Your task to perform on an android device: change the upload size in google photos Image 0: 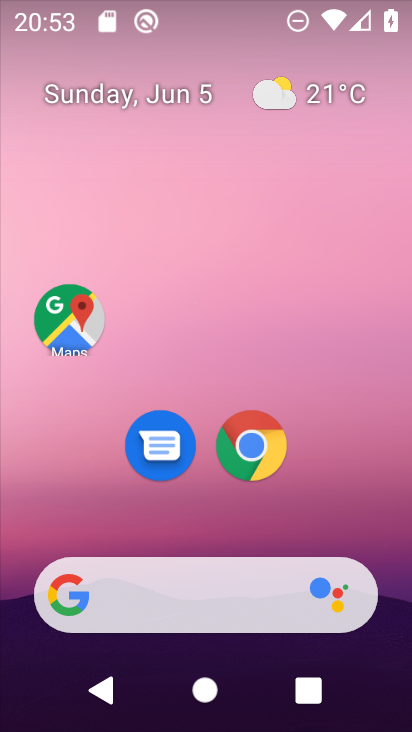
Step 0: press home button
Your task to perform on an android device: change the upload size in google photos Image 1: 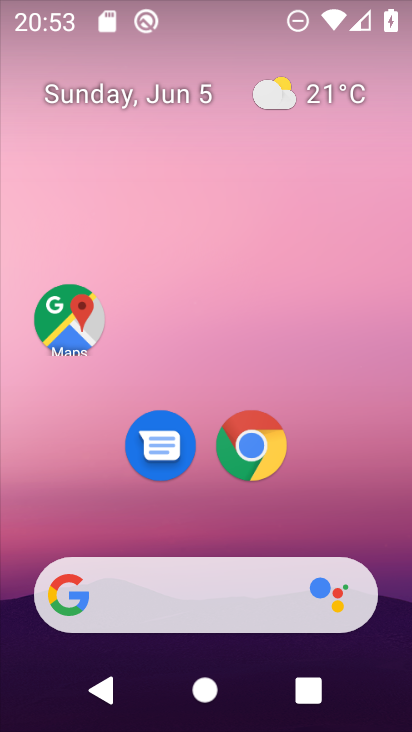
Step 1: drag from (332, 518) to (297, 99)
Your task to perform on an android device: change the upload size in google photos Image 2: 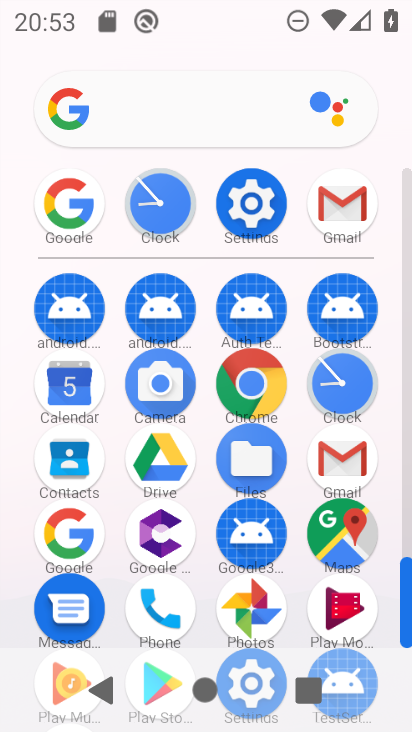
Step 2: click (245, 598)
Your task to perform on an android device: change the upload size in google photos Image 3: 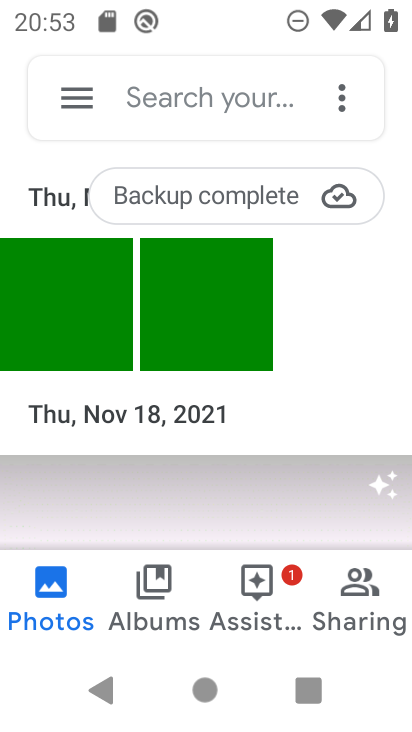
Step 3: click (82, 101)
Your task to perform on an android device: change the upload size in google photos Image 4: 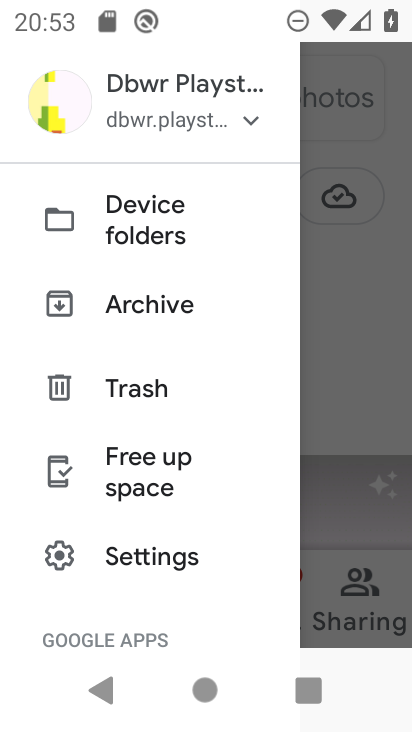
Step 4: drag from (45, 618) to (67, 217)
Your task to perform on an android device: change the upload size in google photos Image 5: 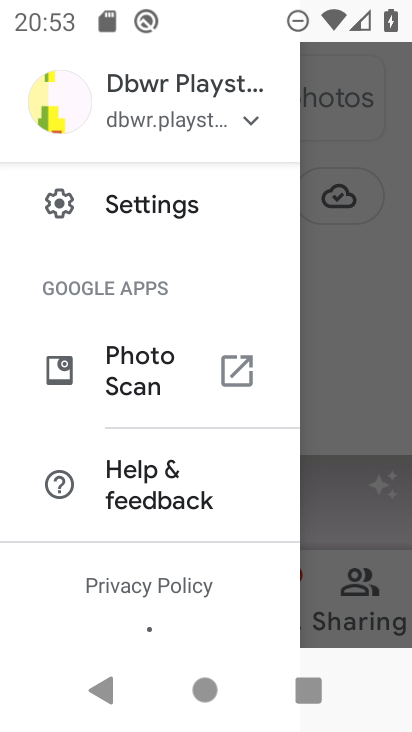
Step 5: click (133, 216)
Your task to perform on an android device: change the upload size in google photos Image 6: 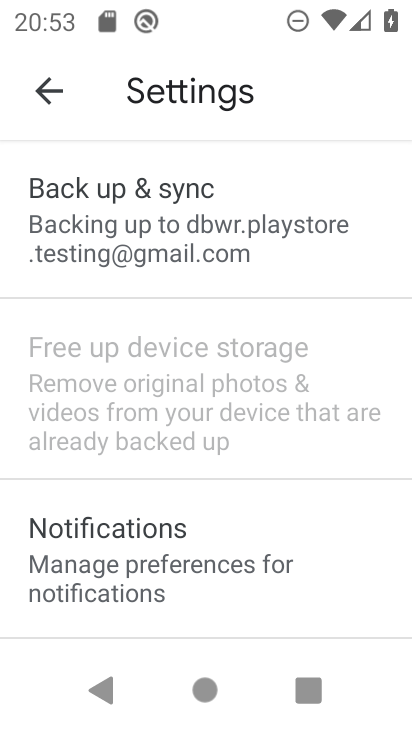
Step 6: click (219, 222)
Your task to perform on an android device: change the upload size in google photos Image 7: 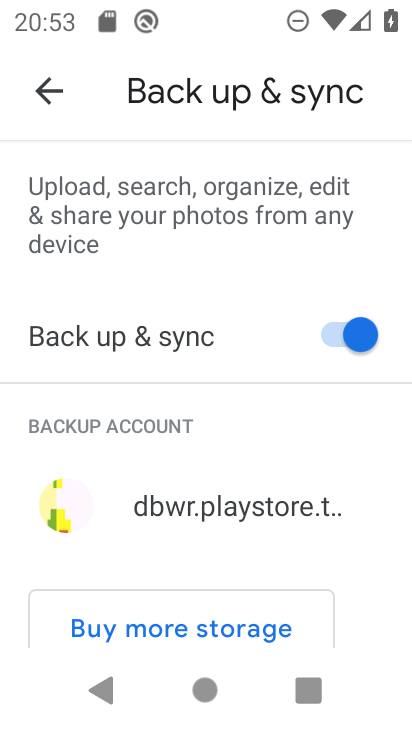
Step 7: drag from (76, 564) to (108, 213)
Your task to perform on an android device: change the upload size in google photos Image 8: 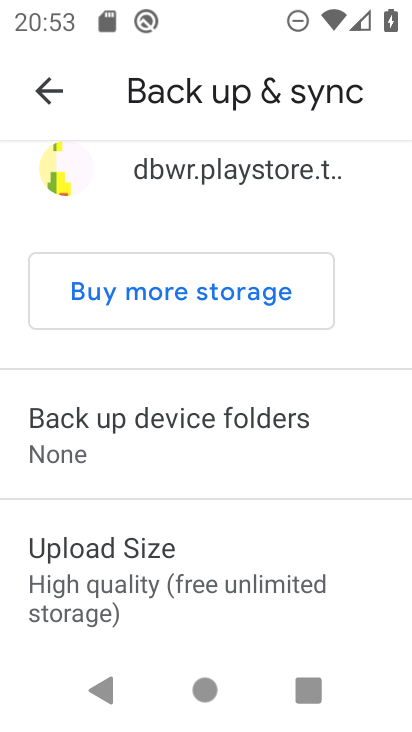
Step 8: click (207, 570)
Your task to perform on an android device: change the upload size in google photos Image 9: 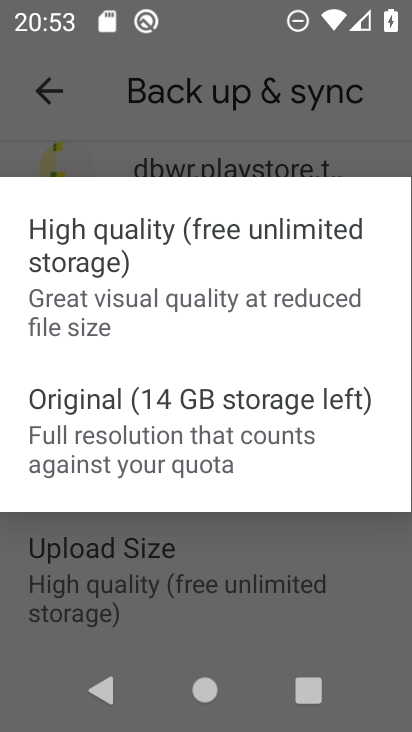
Step 9: click (183, 416)
Your task to perform on an android device: change the upload size in google photos Image 10: 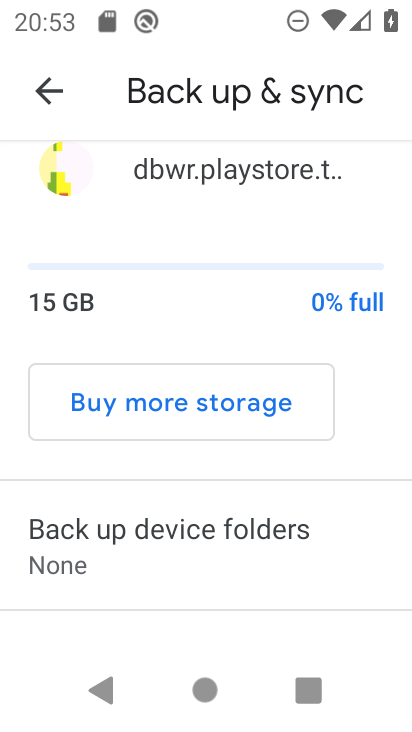
Step 10: task complete